Your task to perform on an android device: change the upload size in google photos Image 0: 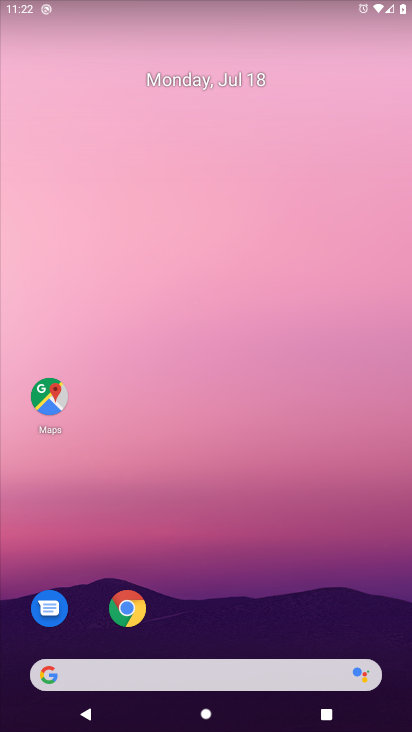
Step 0: drag from (48, 705) to (275, 25)
Your task to perform on an android device: change the upload size in google photos Image 1: 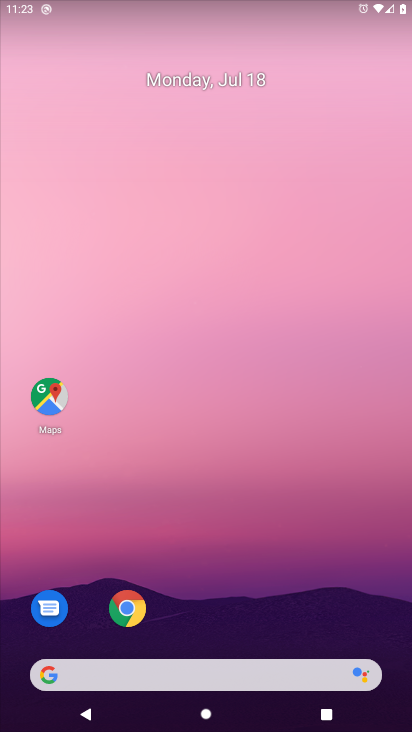
Step 1: task complete